Your task to perform on an android device: turn pop-ups off in chrome Image 0: 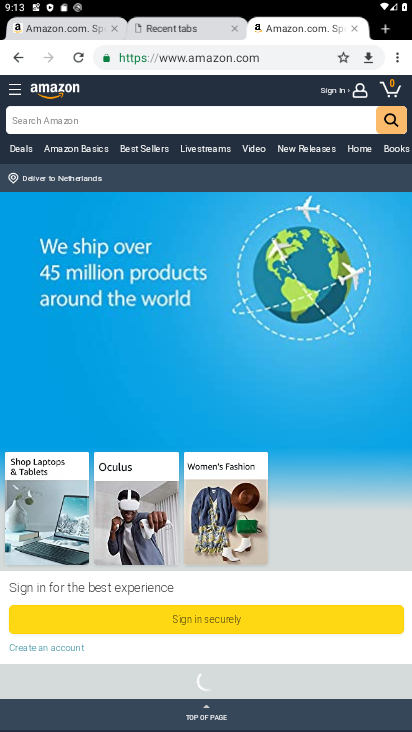
Step 0: press home button
Your task to perform on an android device: turn pop-ups off in chrome Image 1: 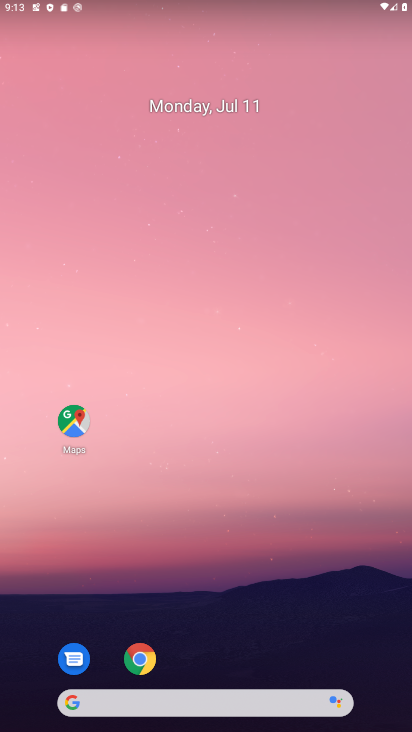
Step 1: drag from (200, 731) to (191, 291)
Your task to perform on an android device: turn pop-ups off in chrome Image 2: 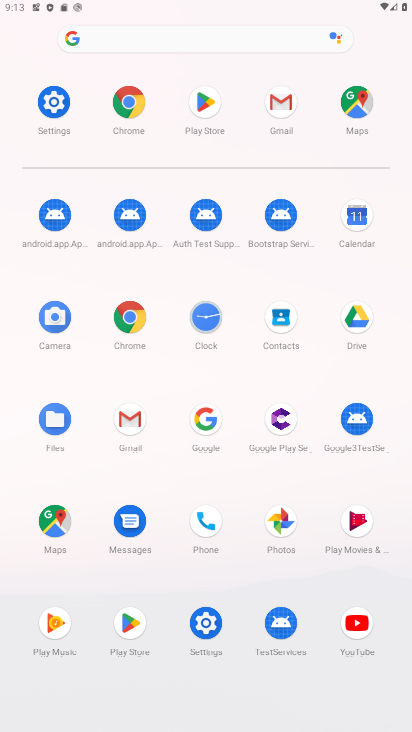
Step 2: click (132, 319)
Your task to perform on an android device: turn pop-ups off in chrome Image 3: 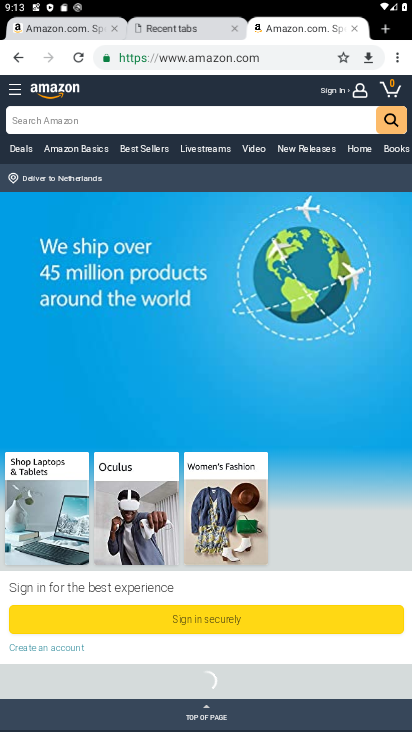
Step 3: click (399, 61)
Your task to perform on an android device: turn pop-ups off in chrome Image 4: 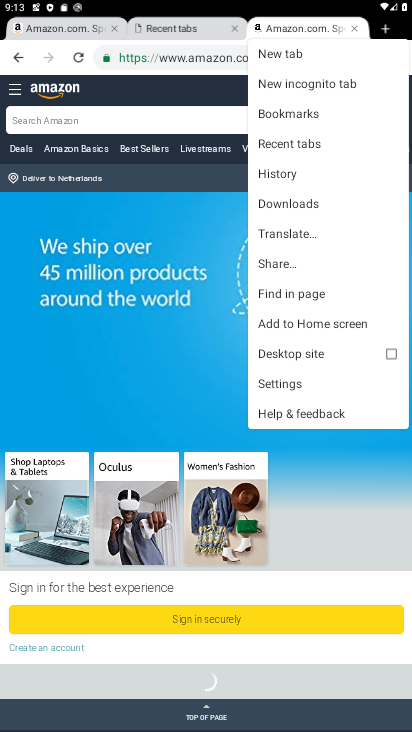
Step 4: click (282, 378)
Your task to perform on an android device: turn pop-ups off in chrome Image 5: 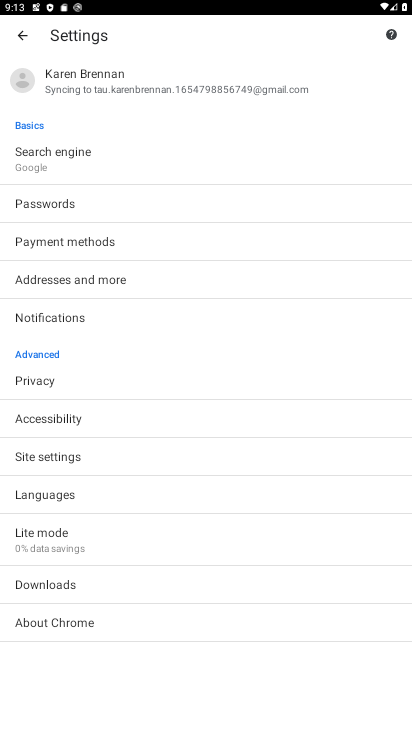
Step 5: click (48, 457)
Your task to perform on an android device: turn pop-ups off in chrome Image 6: 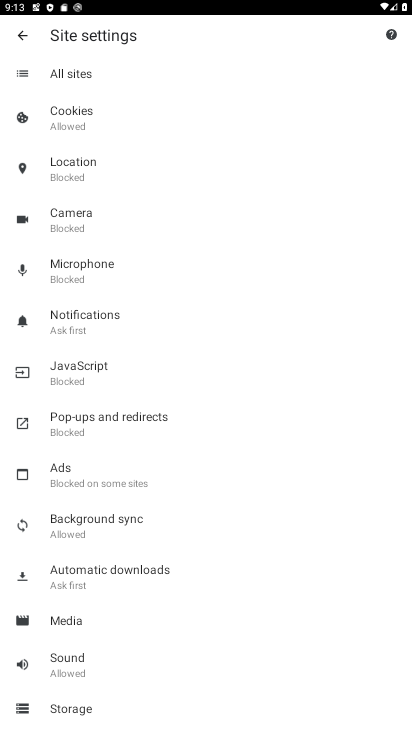
Step 6: click (80, 424)
Your task to perform on an android device: turn pop-ups off in chrome Image 7: 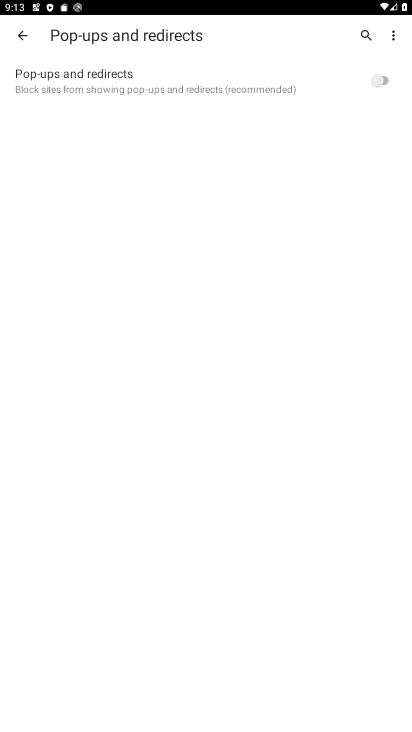
Step 7: task complete